Your task to perform on an android device: Go to Reddit.com Image 0: 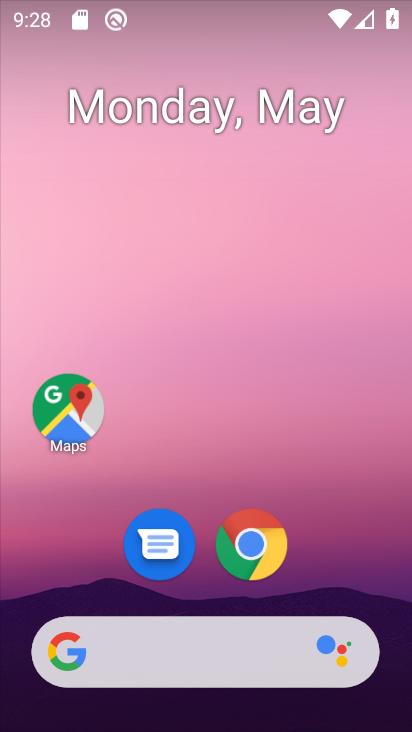
Step 0: drag from (334, 532) to (296, 148)
Your task to perform on an android device: Go to Reddit.com Image 1: 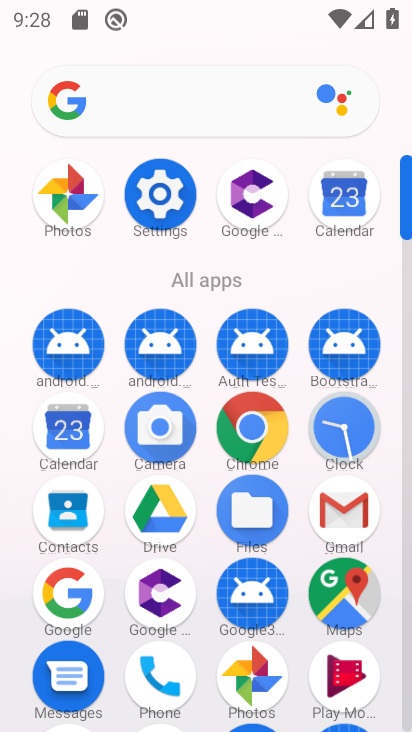
Step 1: click (261, 453)
Your task to perform on an android device: Go to Reddit.com Image 2: 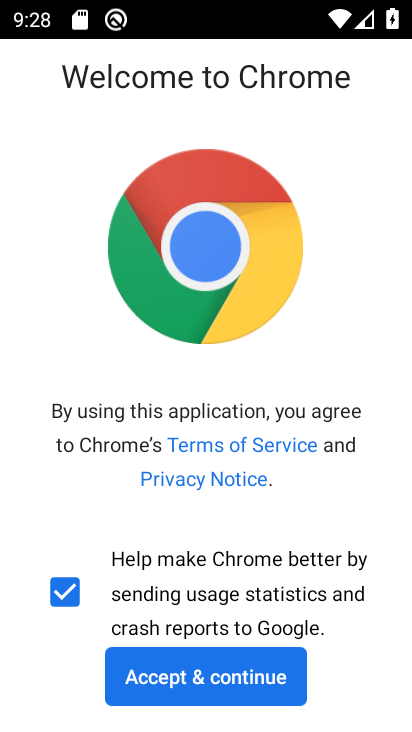
Step 2: click (203, 670)
Your task to perform on an android device: Go to Reddit.com Image 3: 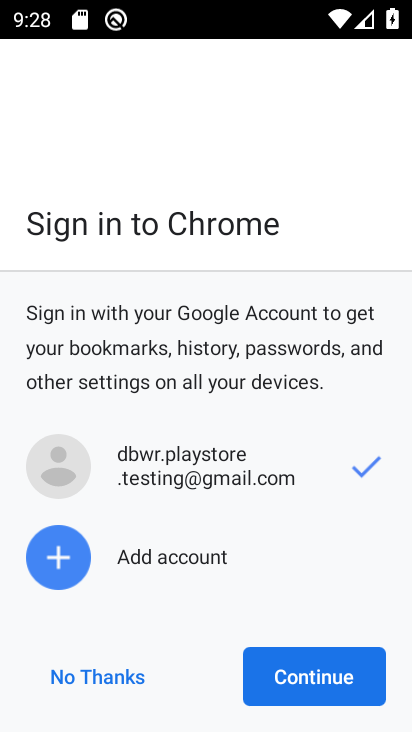
Step 3: click (311, 672)
Your task to perform on an android device: Go to Reddit.com Image 4: 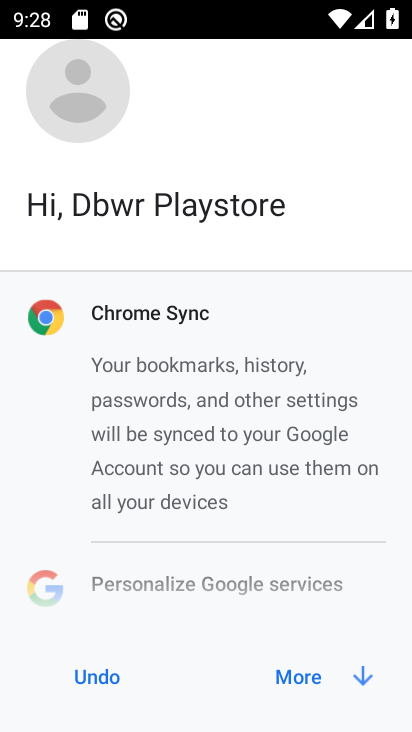
Step 4: click (308, 677)
Your task to perform on an android device: Go to Reddit.com Image 5: 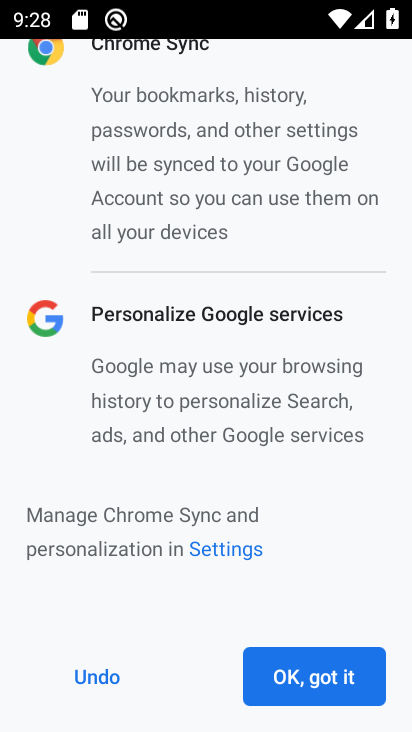
Step 5: click (301, 670)
Your task to perform on an android device: Go to Reddit.com Image 6: 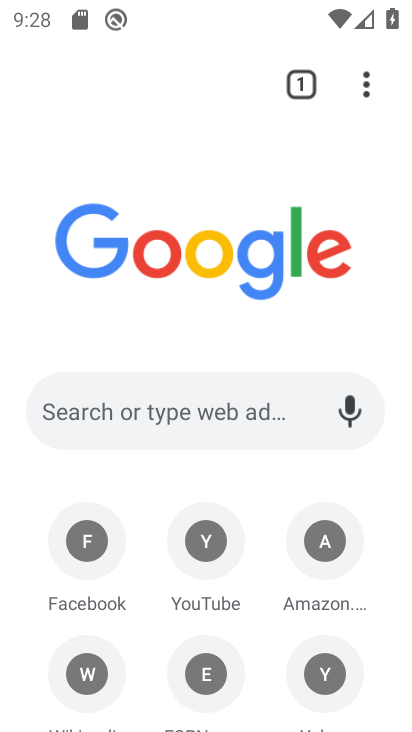
Step 6: click (185, 89)
Your task to perform on an android device: Go to Reddit.com Image 7: 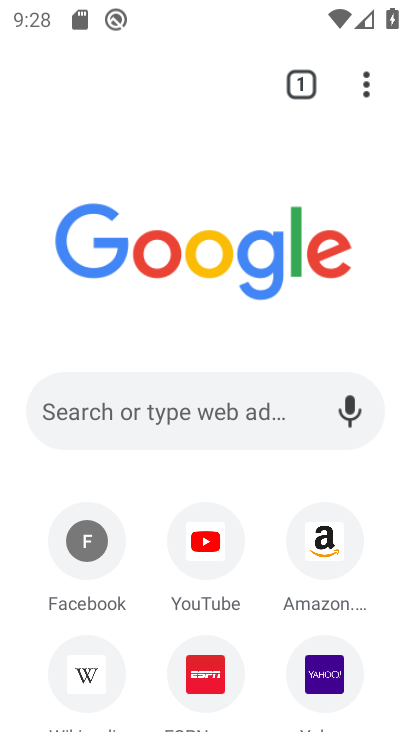
Step 7: click (192, 430)
Your task to perform on an android device: Go to Reddit.com Image 8: 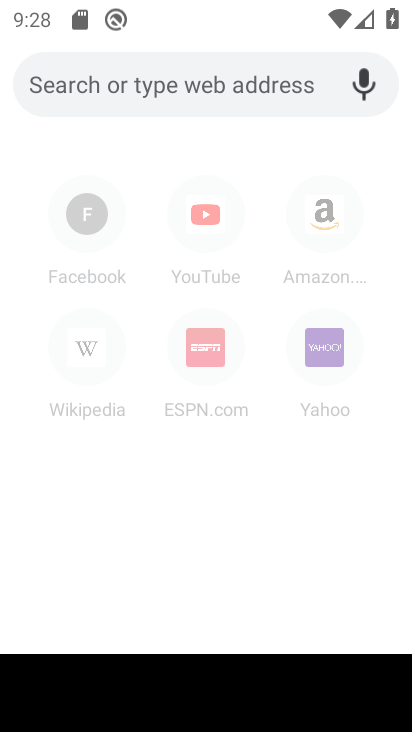
Step 8: type "reddit.com"
Your task to perform on an android device: Go to Reddit.com Image 9: 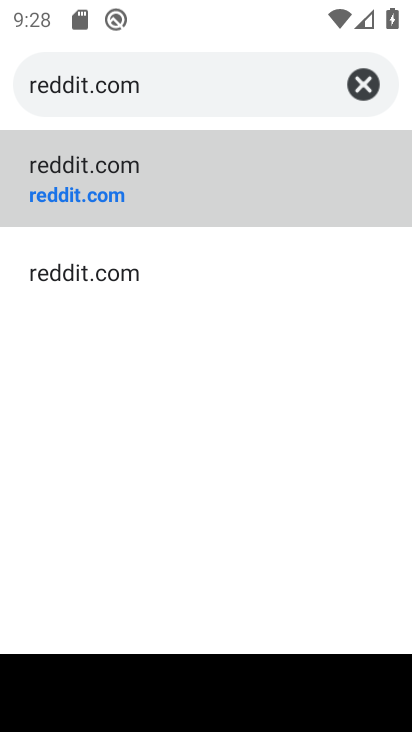
Step 9: click (182, 164)
Your task to perform on an android device: Go to Reddit.com Image 10: 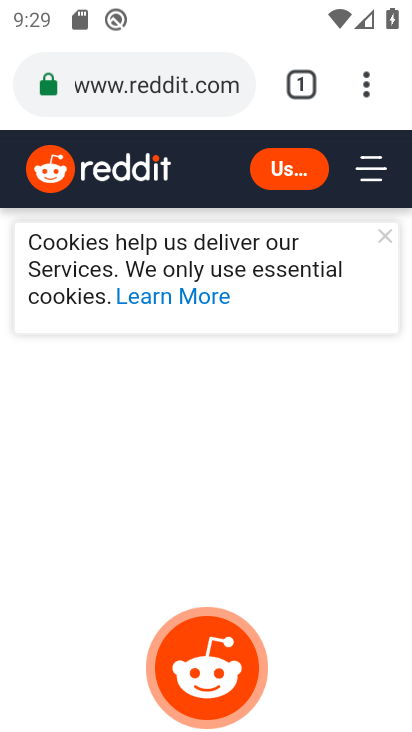
Step 10: task complete